Your task to perform on an android device: Go to calendar. Show me events next week Image 0: 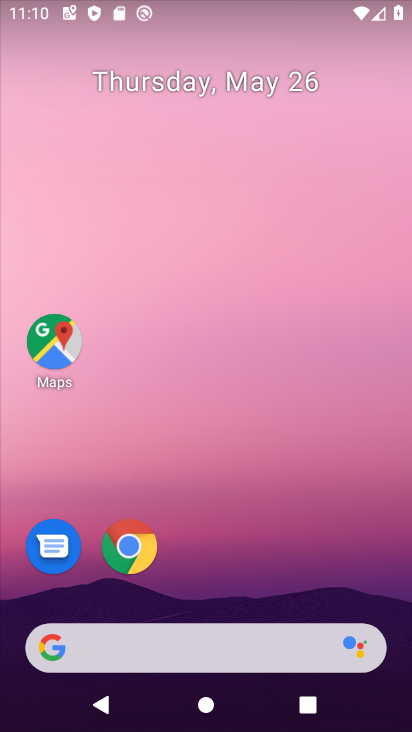
Step 0: drag from (196, 540) to (290, 50)
Your task to perform on an android device: Go to calendar. Show me events next week Image 1: 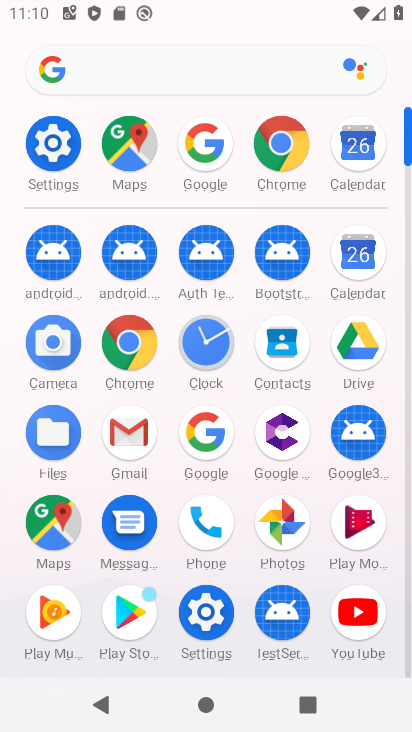
Step 1: click (359, 252)
Your task to perform on an android device: Go to calendar. Show me events next week Image 2: 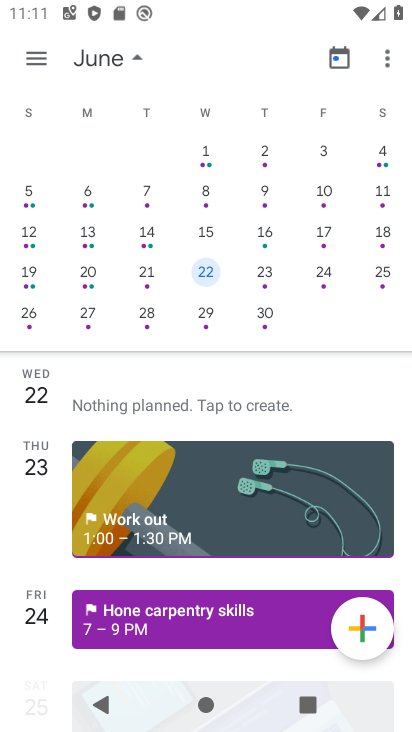
Step 2: drag from (127, 313) to (403, 291)
Your task to perform on an android device: Go to calendar. Show me events next week Image 3: 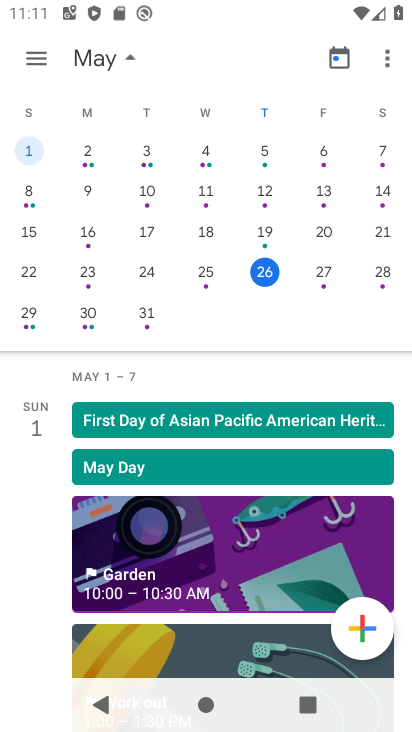
Step 3: click (142, 311)
Your task to perform on an android device: Go to calendar. Show me events next week Image 4: 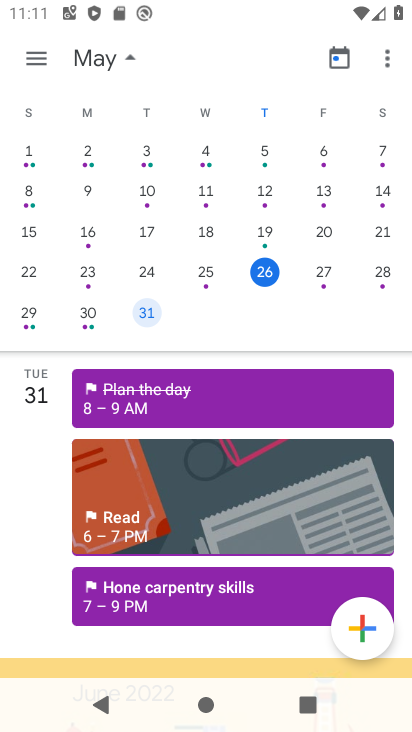
Step 4: task complete